Your task to perform on an android device: Go to Google maps Image 0: 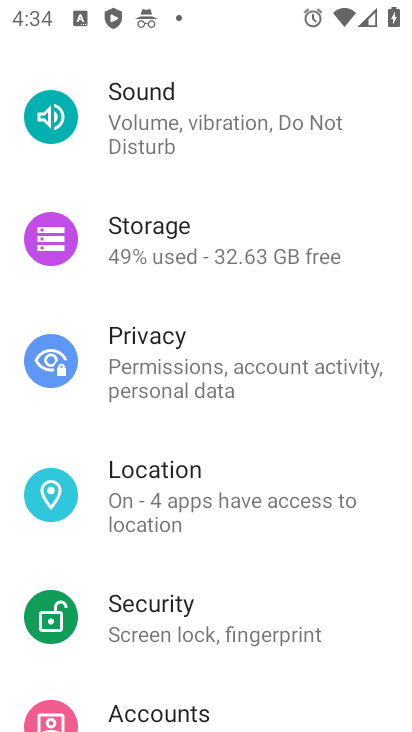
Step 0: press home button
Your task to perform on an android device: Go to Google maps Image 1: 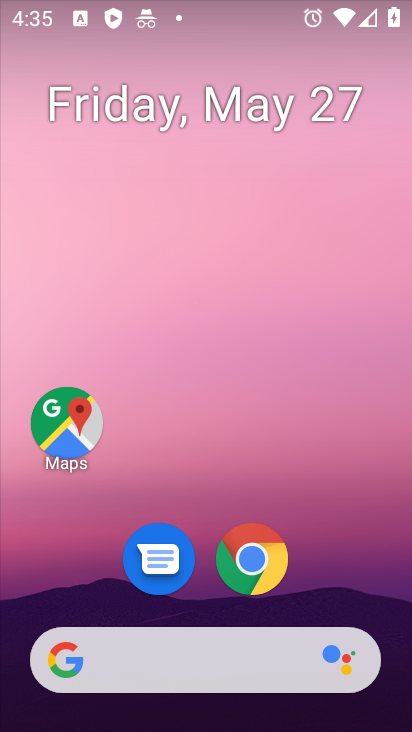
Step 1: drag from (234, 647) to (238, 42)
Your task to perform on an android device: Go to Google maps Image 2: 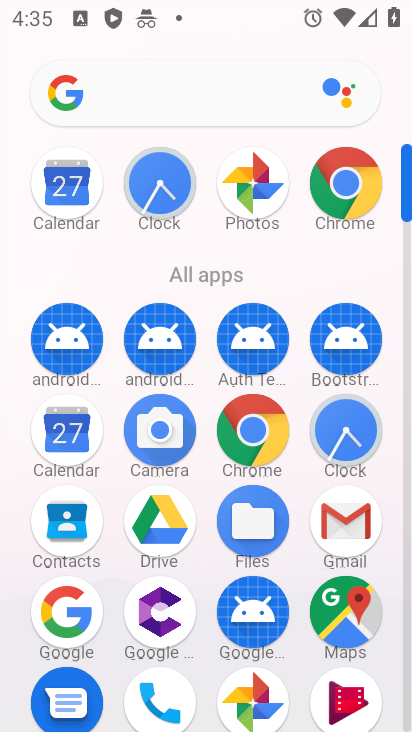
Step 2: click (364, 603)
Your task to perform on an android device: Go to Google maps Image 3: 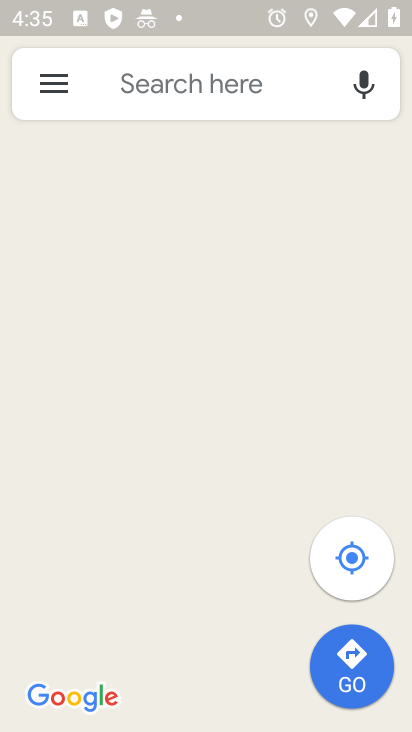
Step 3: task complete